Your task to perform on an android device: turn on the 24-hour format for clock Image 0: 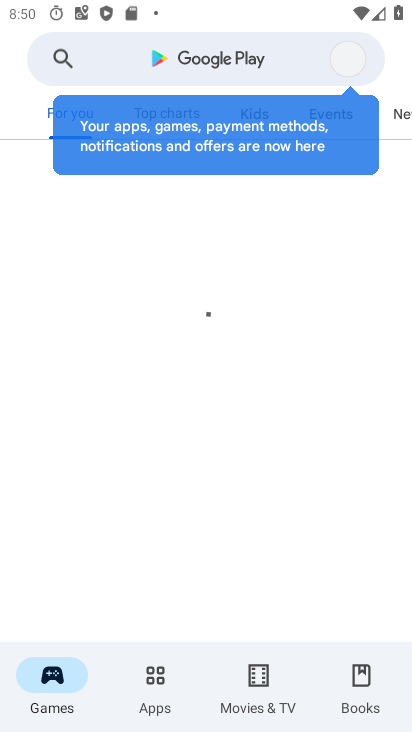
Step 0: press back button
Your task to perform on an android device: turn on the 24-hour format for clock Image 1: 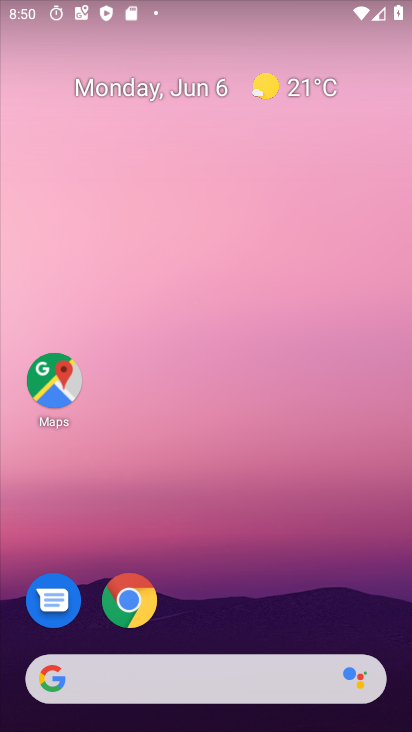
Step 1: drag from (315, 551) to (226, 3)
Your task to perform on an android device: turn on the 24-hour format for clock Image 2: 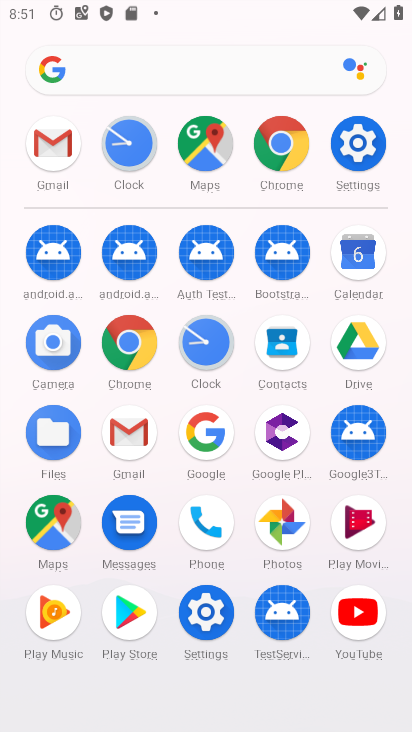
Step 2: click (200, 339)
Your task to perform on an android device: turn on the 24-hour format for clock Image 3: 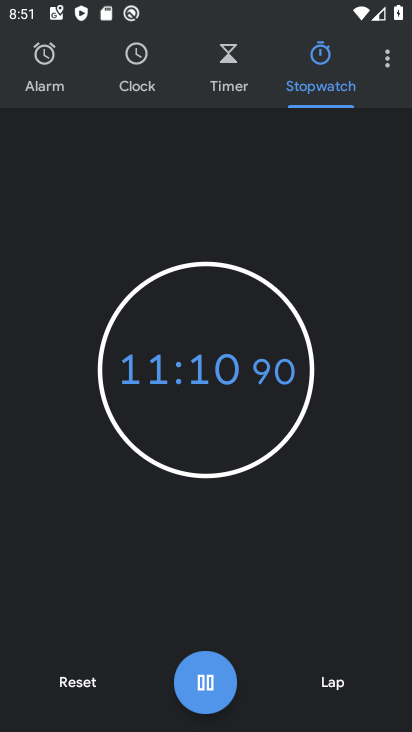
Step 3: drag from (388, 54) to (340, 105)
Your task to perform on an android device: turn on the 24-hour format for clock Image 4: 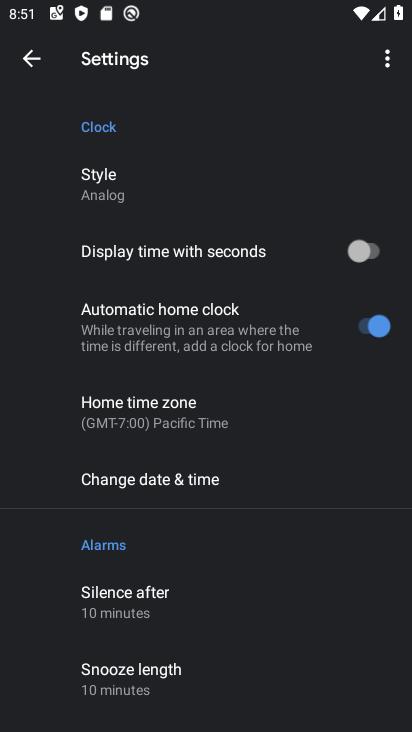
Step 4: click (170, 483)
Your task to perform on an android device: turn on the 24-hour format for clock Image 5: 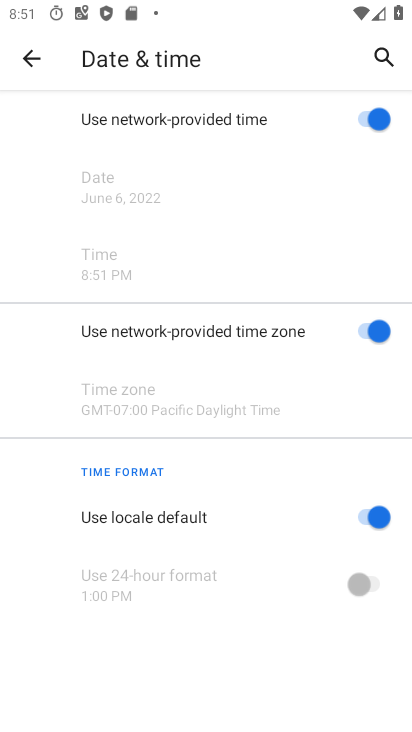
Step 5: click (373, 520)
Your task to perform on an android device: turn on the 24-hour format for clock Image 6: 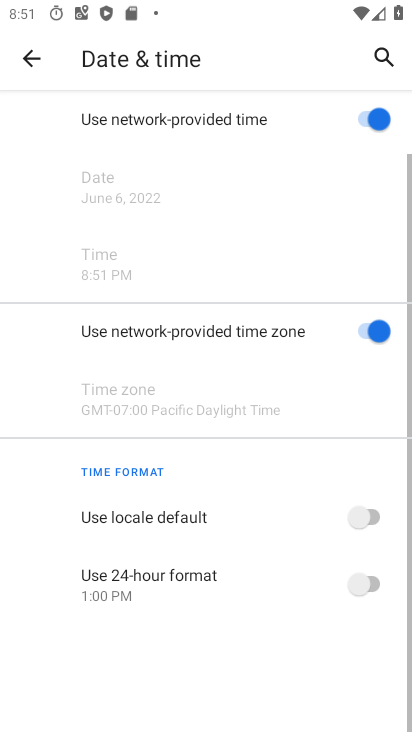
Step 6: click (359, 585)
Your task to perform on an android device: turn on the 24-hour format for clock Image 7: 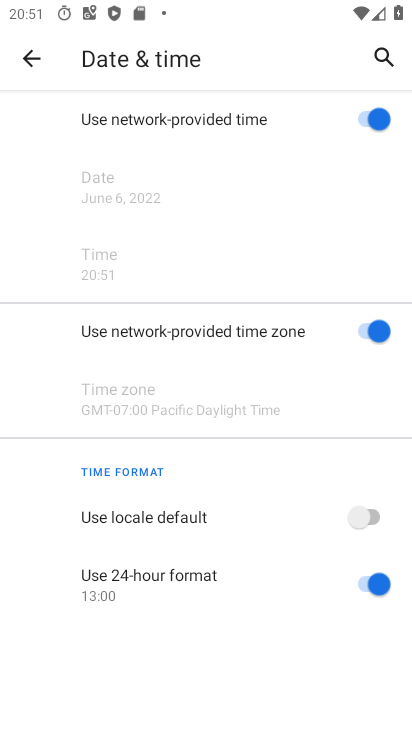
Step 7: task complete